Your task to perform on an android device: see sites visited before in the chrome app Image 0: 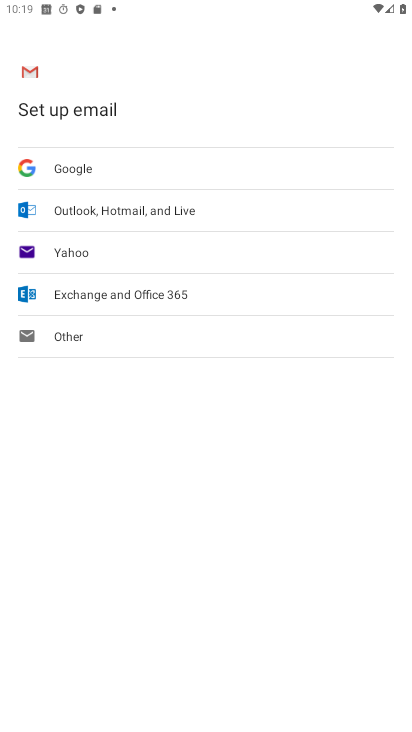
Step 0: drag from (133, 467) to (192, 339)
Your task to perform on an android device: see sites visited before in the chrome app Image 1: 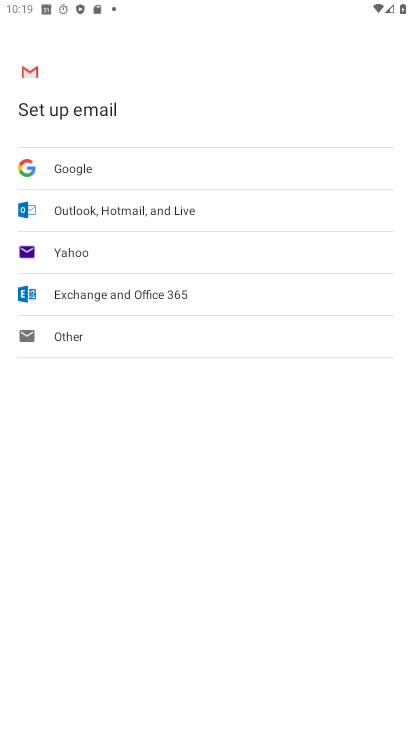
Step 1: press home button
Your task to perform on an android device: see sites visited before in the chrome app Image 2: 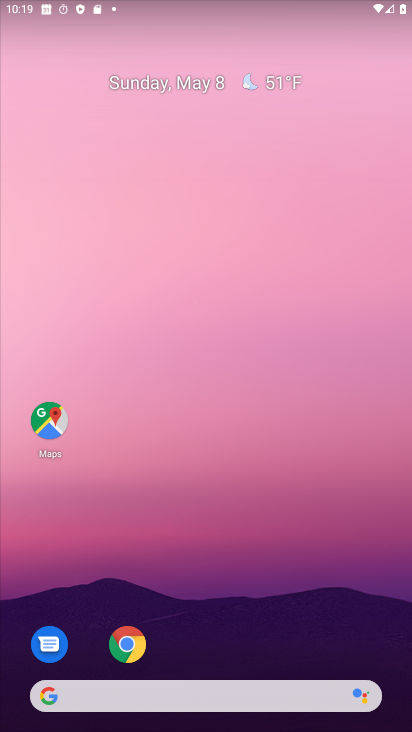
Step 2: click (132, 642)
Your task to perform on an android device: see sites visited before in the chrome app Image 3: 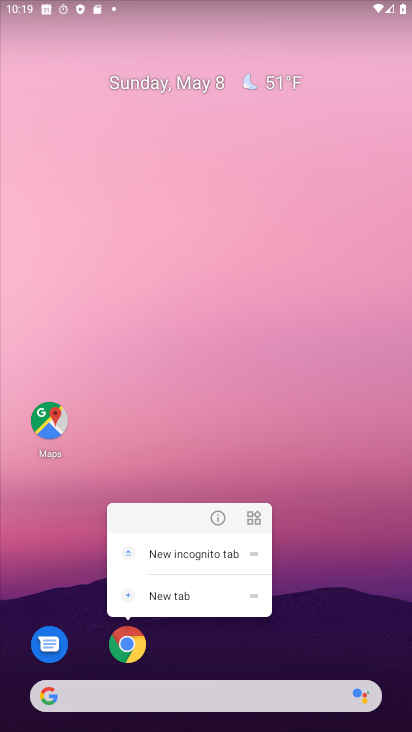
Step 3: drag from (185, 646) to (226, 445)
Your task to perform on an android device: see sites visited before in the chrome app Image 4: 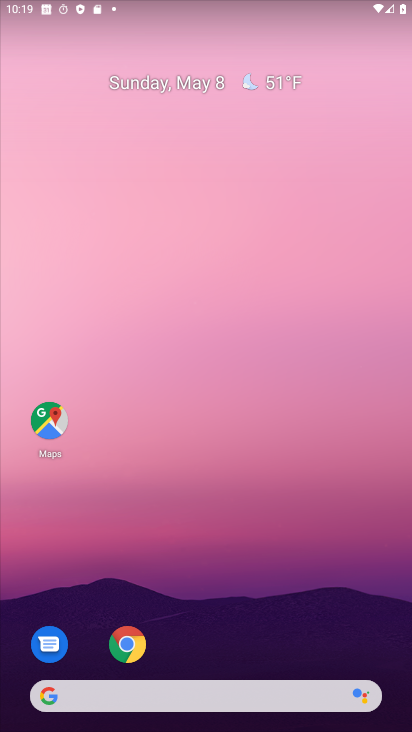
Step 4: drag from (189, 566) to (293, 87)
Your task to perform on an android device: see sites visited before in the chrome app Image 5: 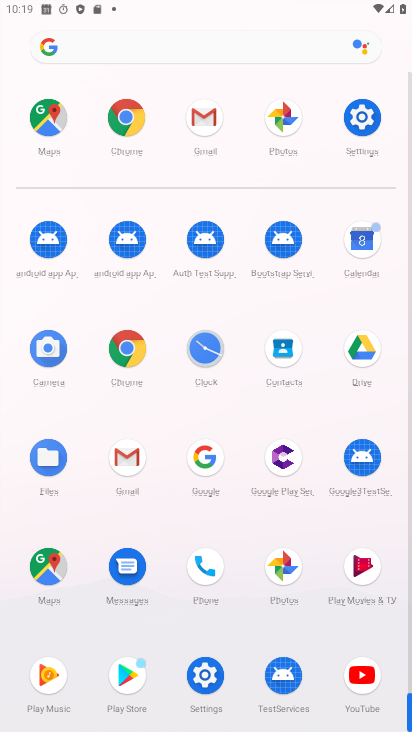
Step 5: click (123, 344)
Your task to perform on an android device: see sites visited before in the chrome app Image 6: 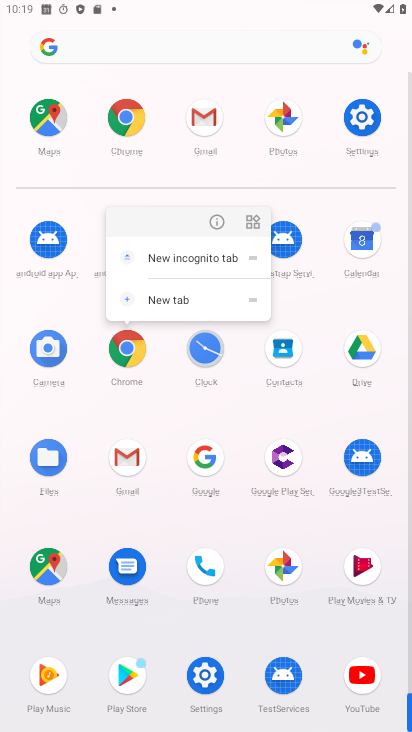
Step 6: click (219, 222)
Your task to perform on an android device: see sites visited before in the chrome app Image 7: 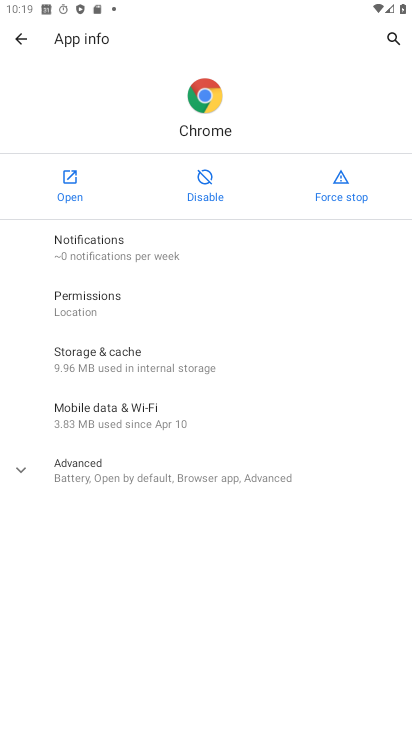
Step 7: click (73, 192)
Your task to perform on an android device: see sites visited before in the chrome app Image 8: 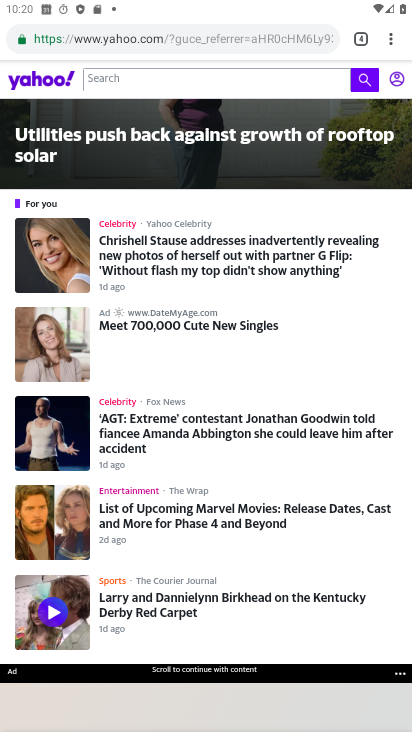
Step 8: drag from (269, 615) to (353, 324)
Your task to perform on an android device: see sites visited before in the chrome app Image 9: 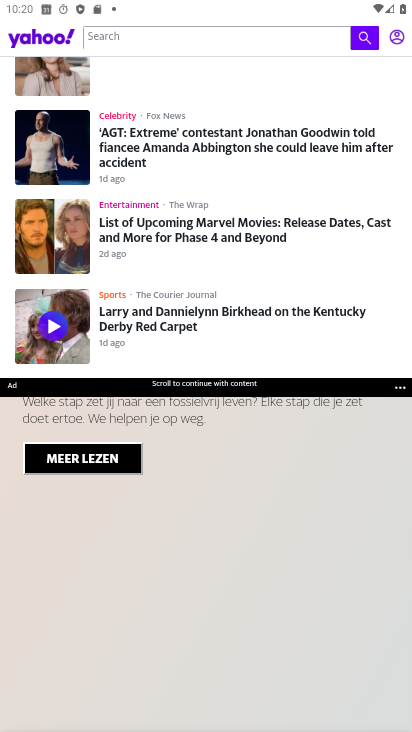
Step 9: drag from (381, 70) to (312, 449)
Your task to perform on an android device: see sites visited before in the chrome app Image 10: 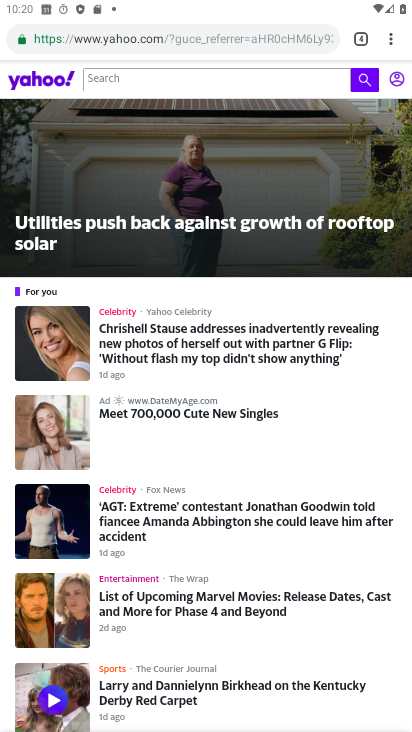
Step 10: drag from (386, 38) to (282, 481)
Your task to perform on an android device: see sites visited before in the chrome app Image 11: 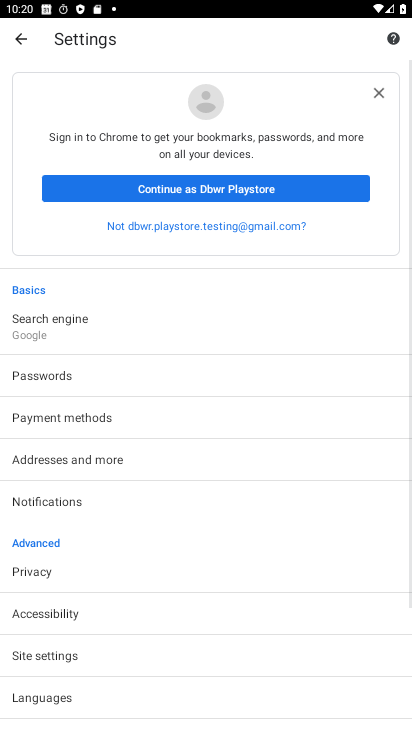
Step 11: drag from (114, 638) to (206, 313)
Your task to perform on an android device: see sites visited before in the chrome app Image 12: 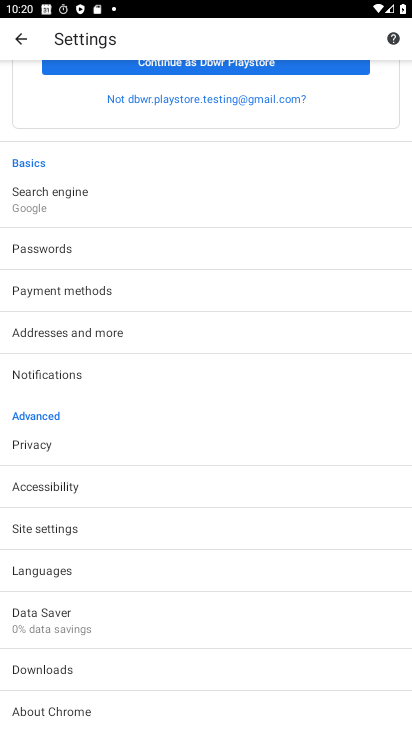
Step 12: click (16, 39)
Your task to perform on an android device: see sites visited before in the chrome app Image 13: 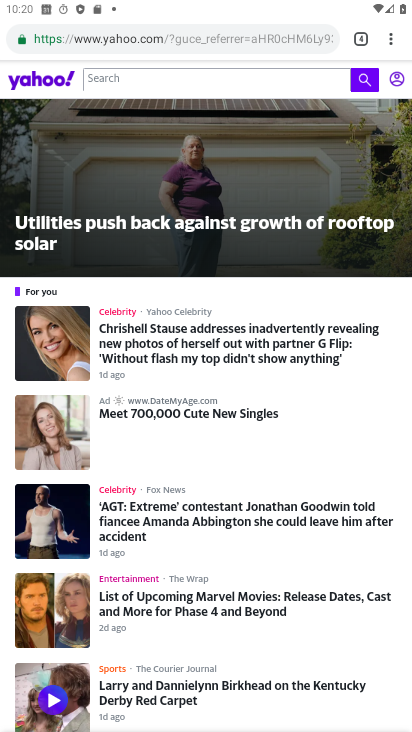
Step 13: task complete